Your task to perform on an android device: Is it going to rain tomorrow? Image 0: 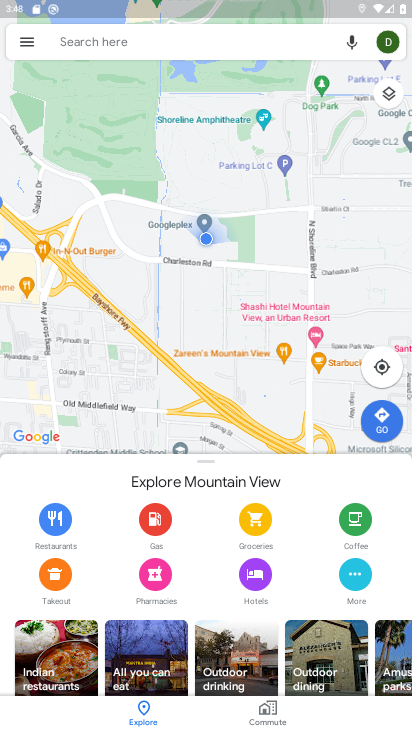
Step 0: press home button
Your task to perform on an android device: Is it going to rain tomorrow? Image 1: 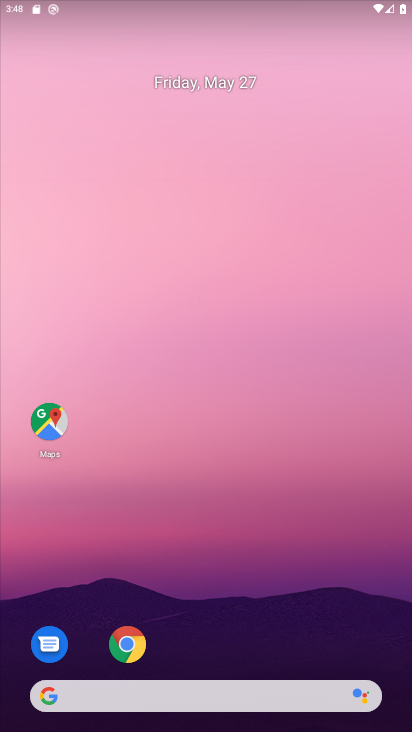
Step 1: click (186, 82)
Your task to perform on an android device: Is it going to rain tomorrow? Image 2: 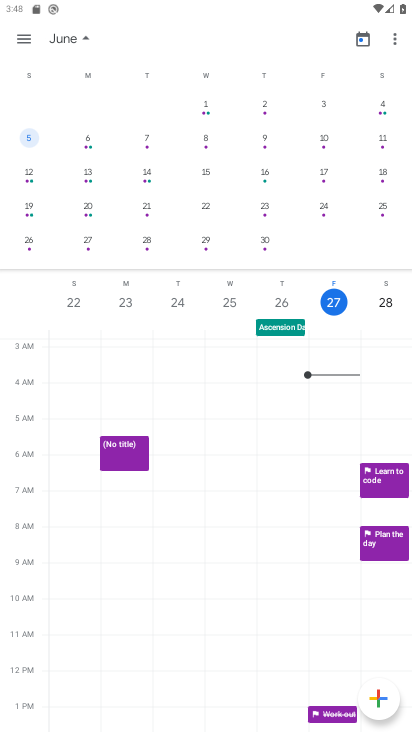
Step 2: press home button
Your task to perform on an android device: Is it going to rain tomorrow? Image 3: 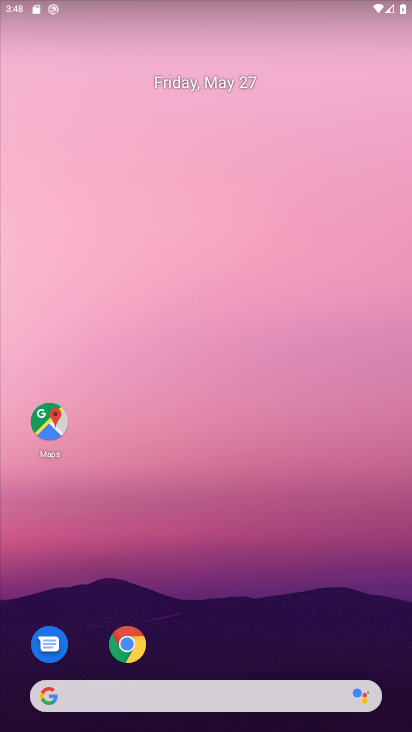
Step 3: drag from (273, 595) to (151, 17)
Your task to perform on an android device: Is it going to rain tomorrow? Image 4: 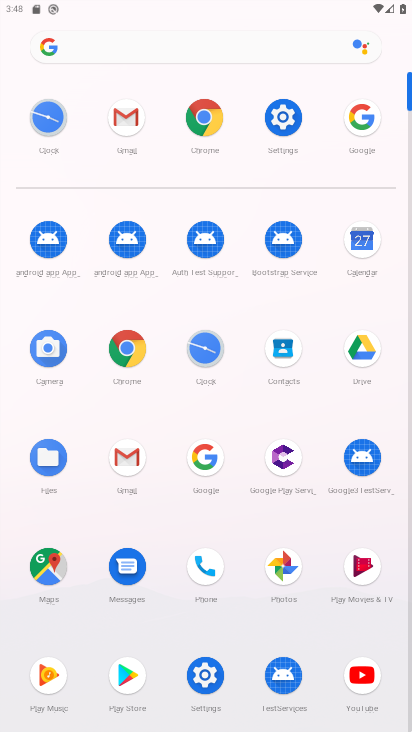
Step 4: click (217, 457)
Your task to perform on an android device: Is it going to rain tomorrow? Image 5: 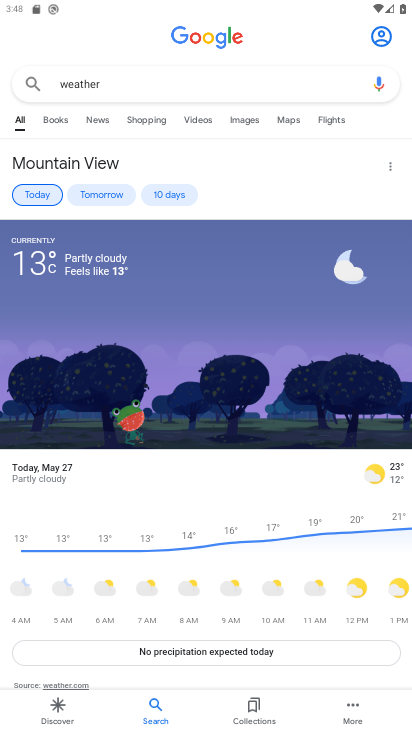
Step 5: click (102, 193)
Your task to perform on an android device: Is it going to rain tomorrow? Image 6: 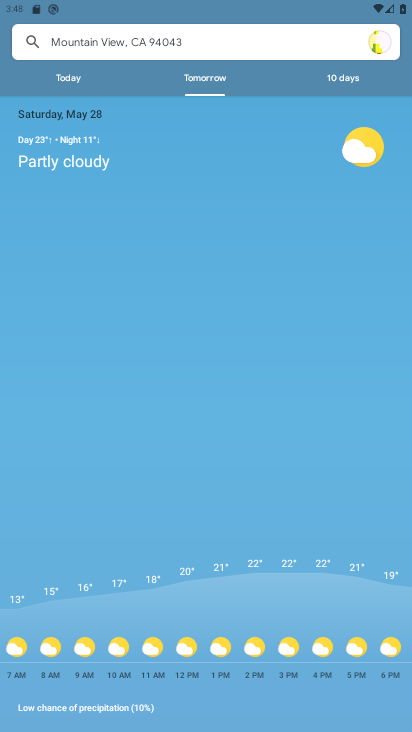
Step 6: task complete